Your task to perform on an android device: clear history in the chrome app Image 0: 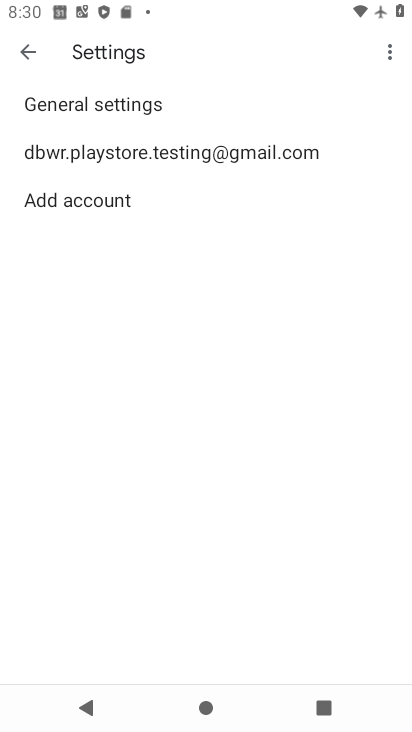
Step 0: press home button
Your task to perform on an android device: clear history in the chrome app Image 1: 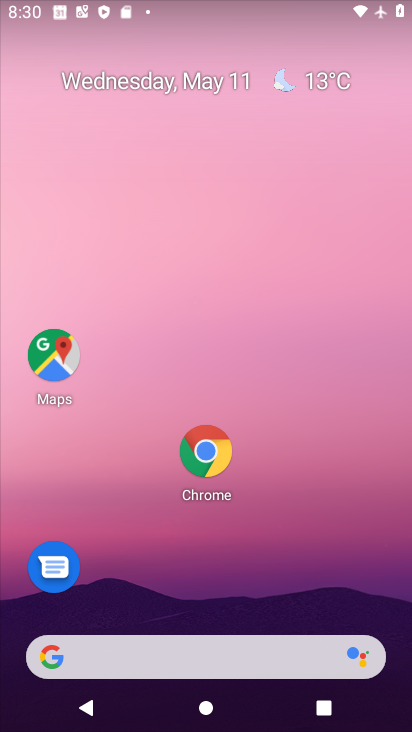
Step 1: click (209, 455)
Your task to perform on an android device: clear history in the chrome app Image 2: 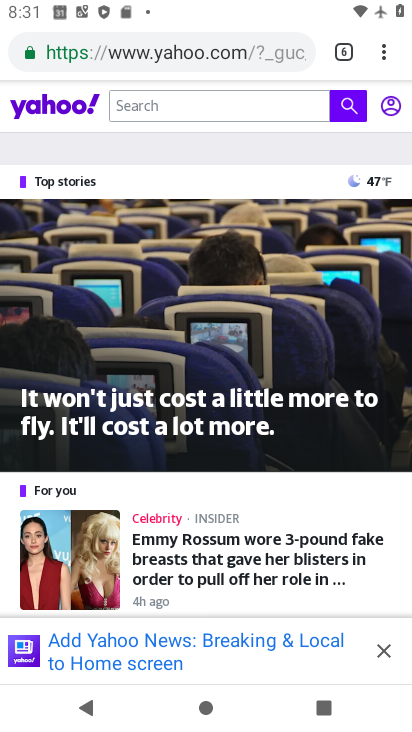
Step 2: drag from (386, 55) to (199, 299)
Your task to perform on an android device: clear history in the chrome app Image 3: 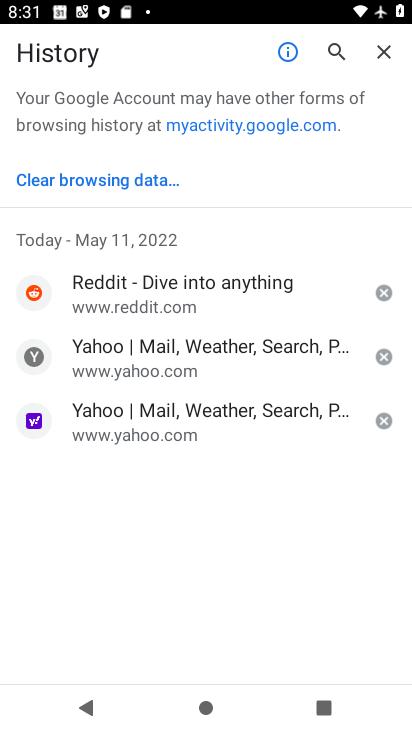
Step 3: click (110, 177)
Your task to perform on an android device: clear history in the chrome app Image 4: 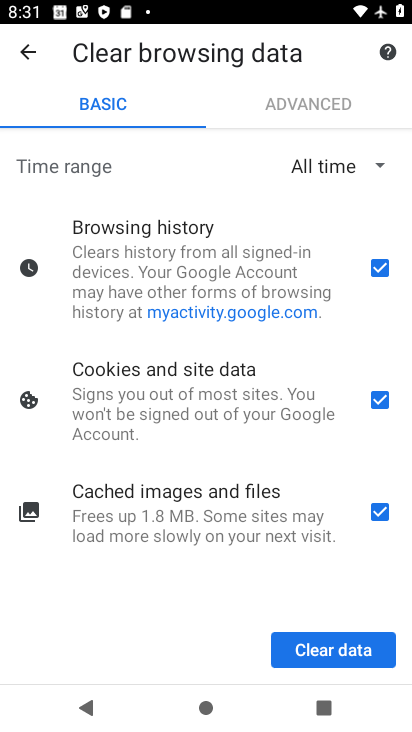
Step 4: click (339, 653)
Your task to perform on an android device: clear history in the chrome app Image 5: 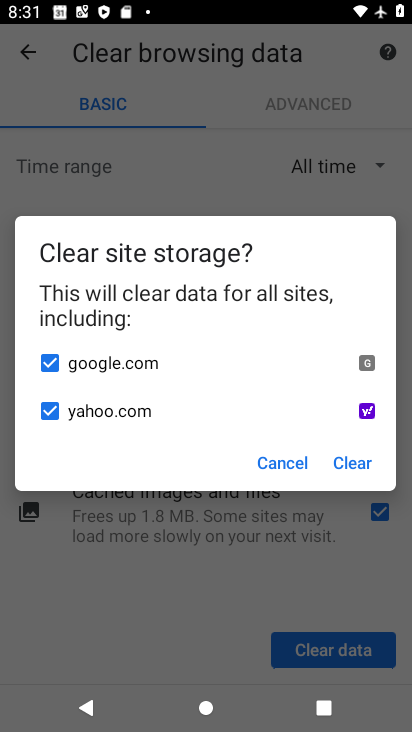
Step 5: click (360, 466)
Your task to perform on an android device: clear history in the chrome app Image 6: 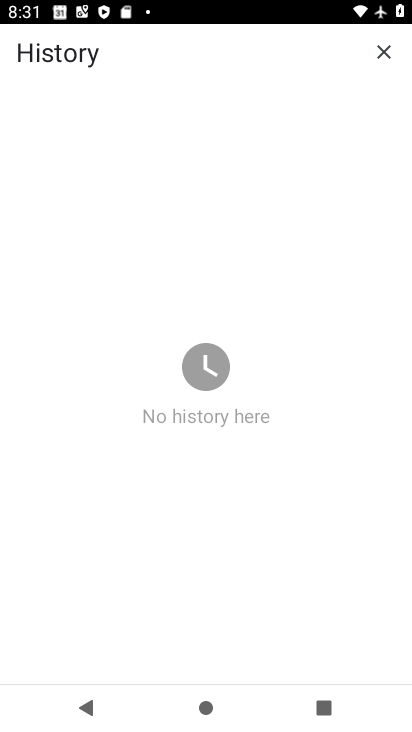
Step 6: task complete